Your task to perform on an android device: change alarm snooze length Image 0: 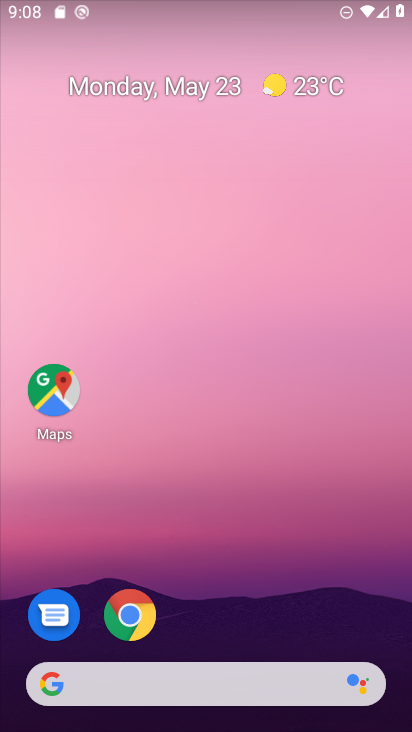
Step 0: drag from (258, 579) to (193, 108)
Your task to perform on an android device: change alarm snooze length Image 1: 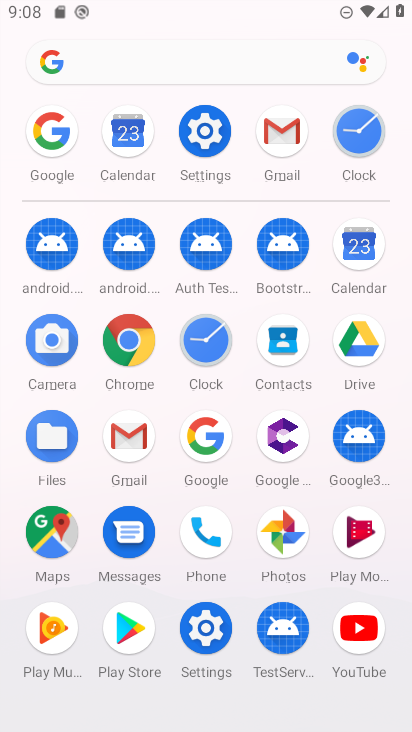
Step 1: click (358, 132)
Your task to perform on an android device: change alarm snooze length Image 2: 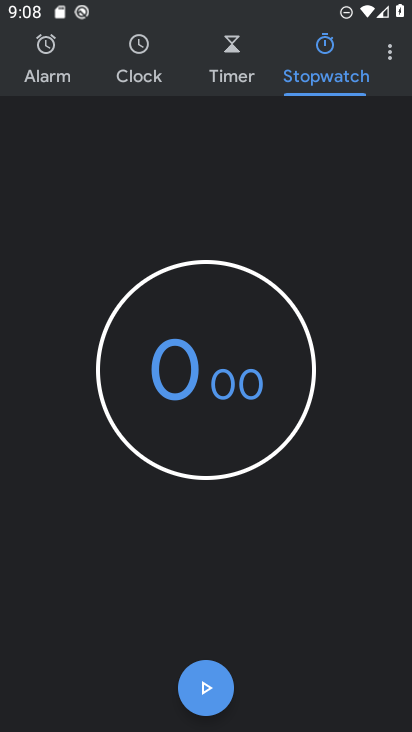
Step 2: click (394, 54)
Your task to perform on an android device: change alarm snooze length Image 3: 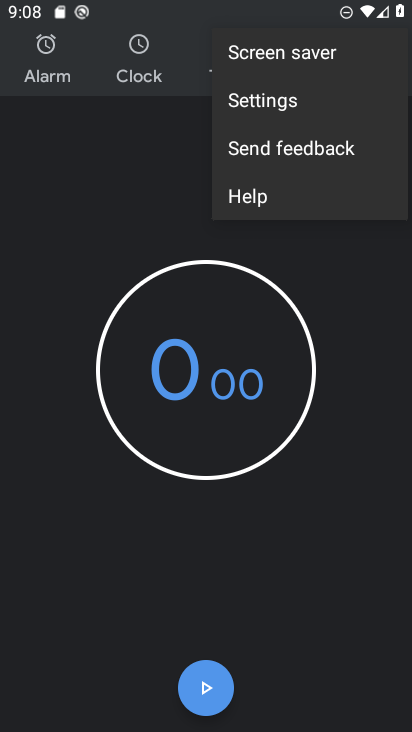
Step 3: click (300, 114)
Your task to perform on an android device: change alarm snooze length Image 4: 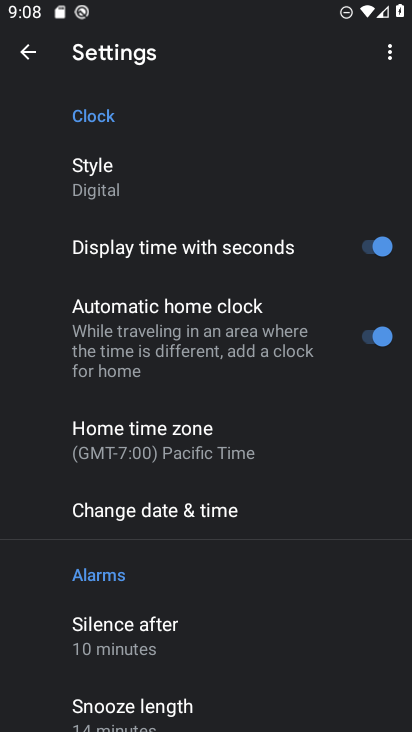
Step 4: drag from (268, 564) to (334, 450)
Your task to perform on an android device: change alarm snooze length Image 5: 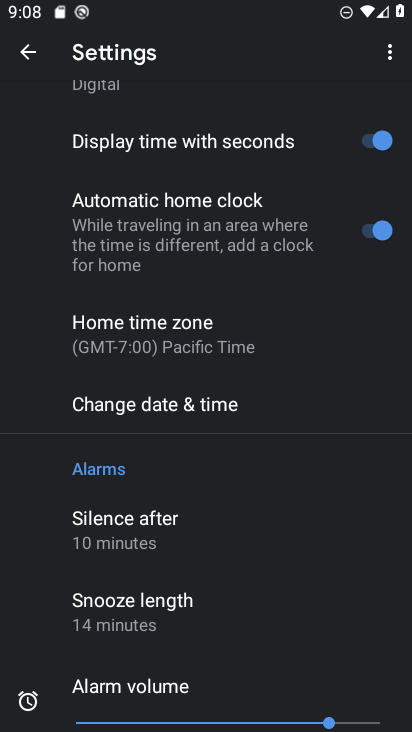
Step 5: drag from (270, 538) to (312, 452)
Your task to perform on an android device: change alarm snooze length Image 6: 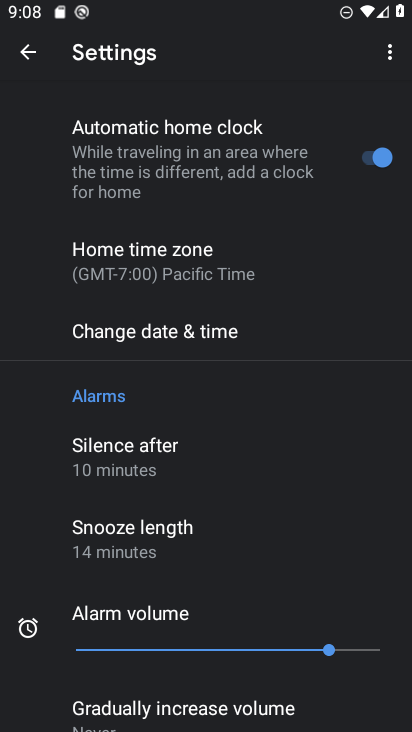
Step 6: click (170, 536)
Your task to perform on an android device: change alarm snooze length Image 7: 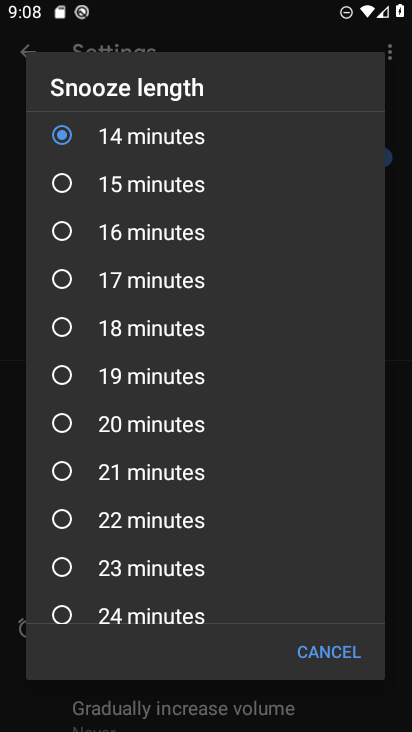
Step 7: drag from (180, 278) to (135, 537)
Your task to perform on an android device: change alarm snooze length Image 8: 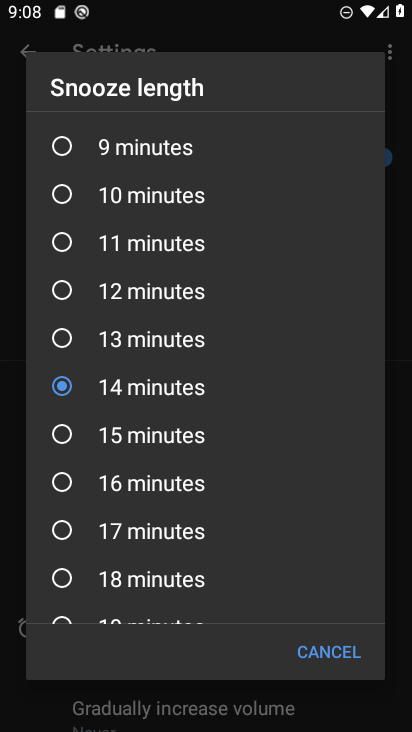
Step 8: drag from (165, 242) to (155, 429)
Your task to perform on an android device: change alarm snooze length Image 9: 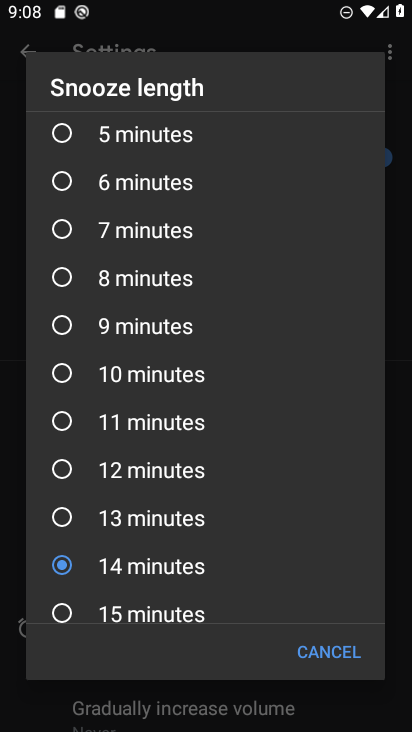
Step 9: click (57, 135)
Your task to perform on an android device: change alarm snooze length Image 10: 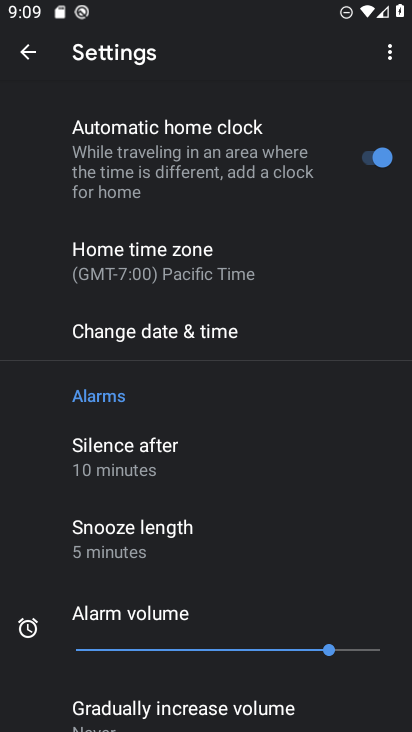
Step 10: task complete